Your task to perform on an android device: set default search engine in the chrome app Image 0: 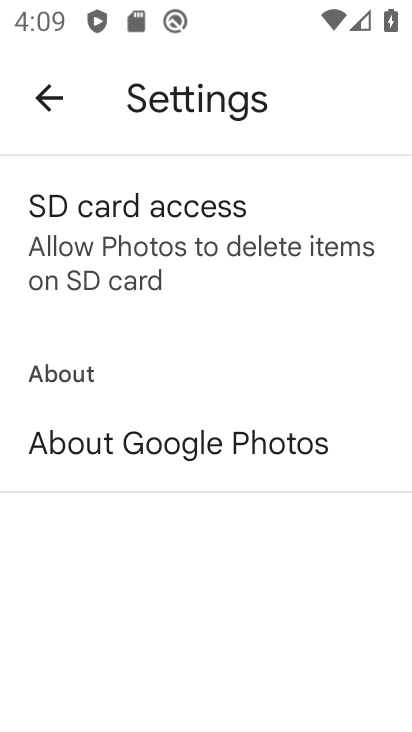
Step 0: press home button
Your task to perform on an android device: set default search engine in the chrome app Image 1: 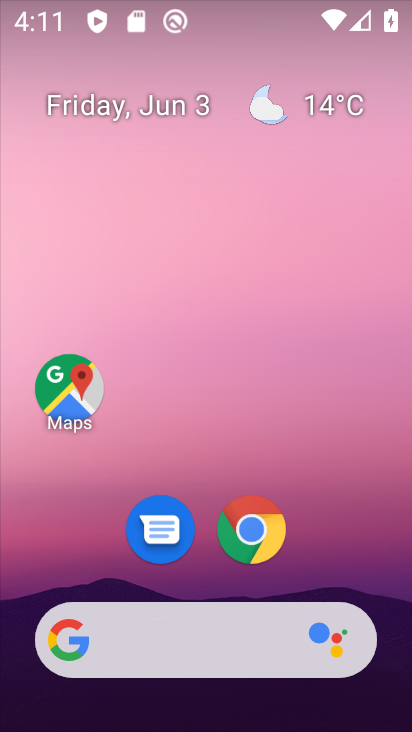
Step 1: drag from (360, 105) to (353, 32)
Your task to perform on an android device: set default search engine in the chrome app Image 2: 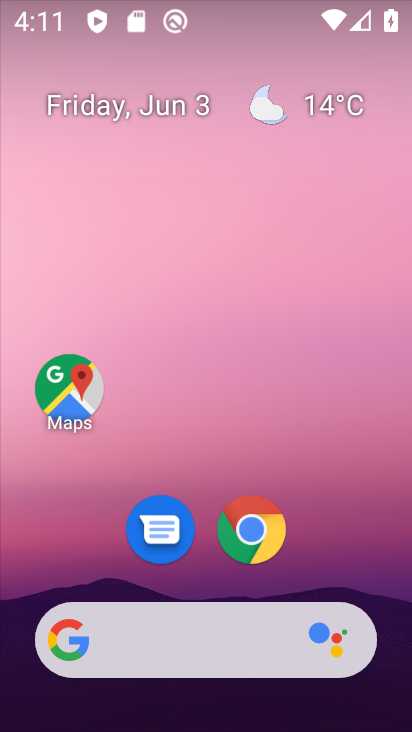
Step 2: drag from (336, 498) to (330, 5)
Your task to perform on an android device: set default search engine in the chrome app Image 3: 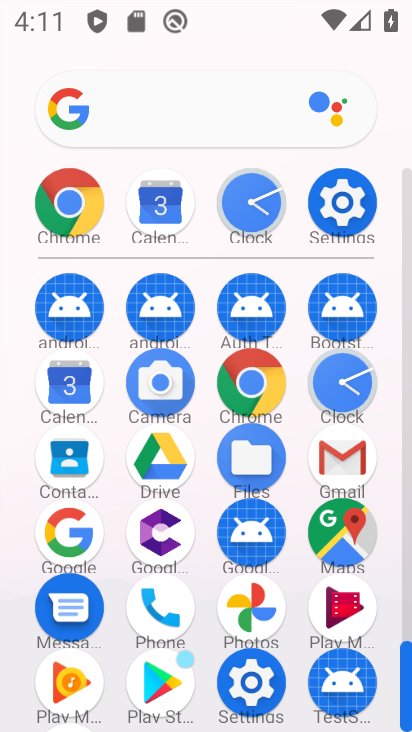
Step 3: click (55, 240)
Your task to perform on an android device: set default search engine in the chrome app Image 4: 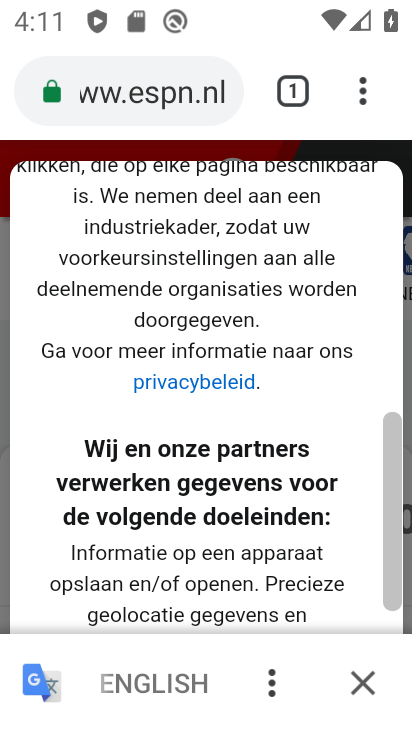
Step 4: drag from (369, 108) to (110, 555)
Your task to perform on an android device: set default search engine in the chrome app Image 5: 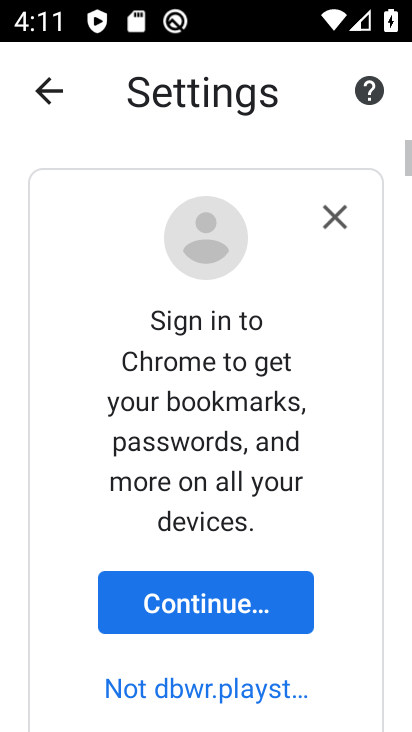
Step 5: drag from (165, 542) to (149, 80)
Your task to perform on an android device: set default search engine in the chrome app Image 6: 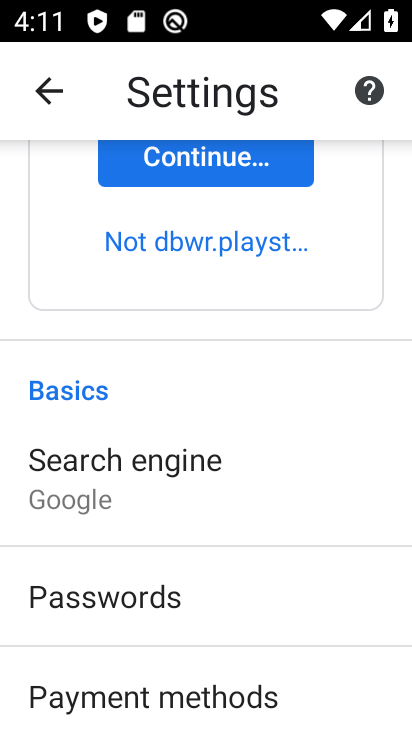
Step 6: click (176, 462)
Your task to perform on an android device: set default search engine in the chrome app Image 7: 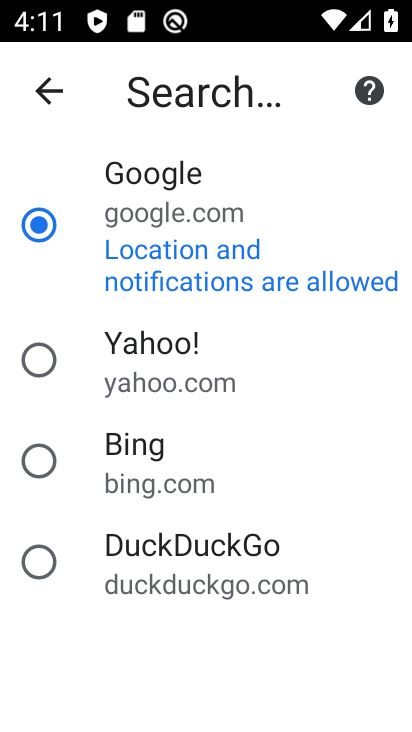
Step 7: task complete